Your task to perform on an android device: check google app version Image 0: 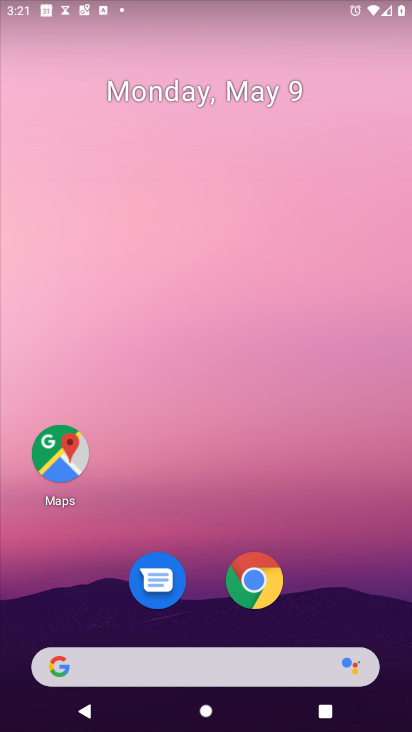
Step 0: drag from (339, 595) to (225, 81)
Your task to perform on an android device: check google app version Image 1: 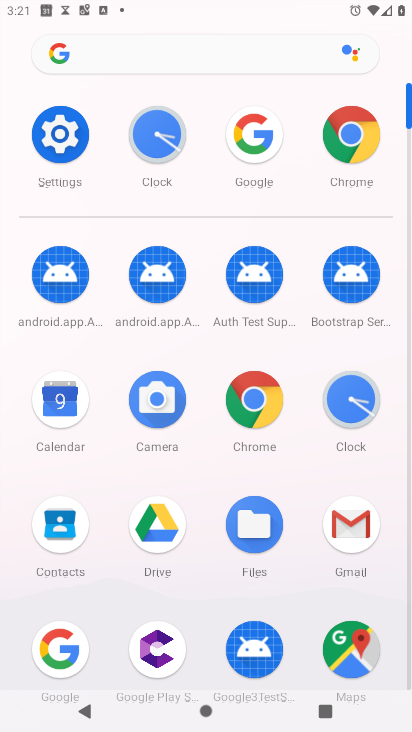
Step 1: click (60, 642)
Your task to perform on an android device: check google app version Image 2: 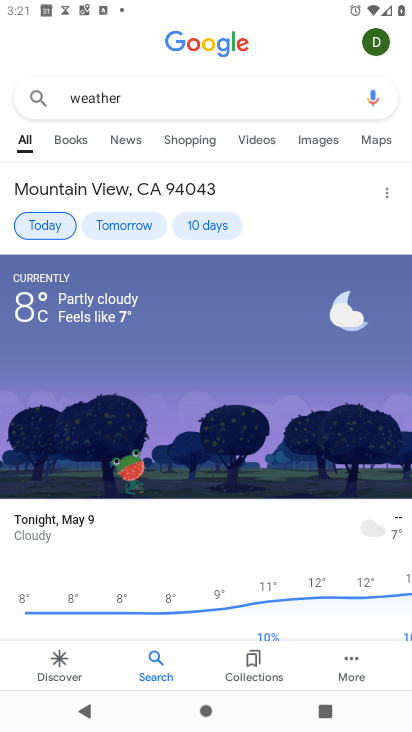
Step 2: click (356, 670)
Your task to perform on an android device: check google app version Image 3: 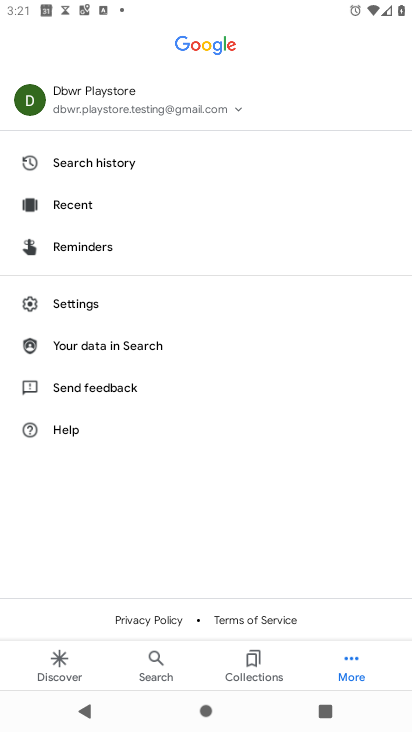
Step 3: click (99, 290)
Your task to perform on an android device: check google app version Image 4: 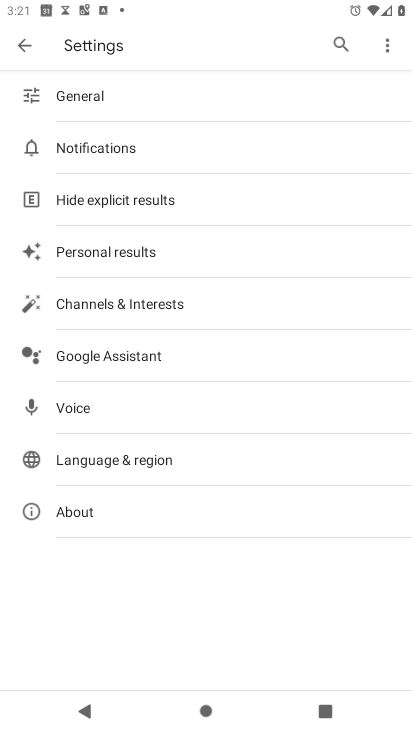
Step 4: click (107, 522)
Your task to perform on an android device: check google app version Image 5: 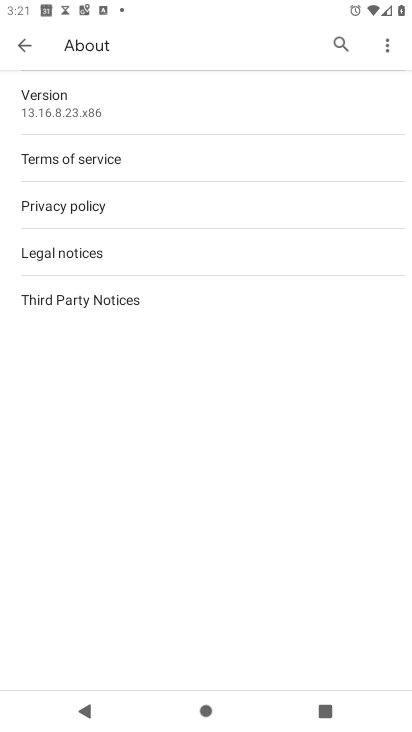
Step 5: click (109, 105)
Your task to perform on an android device: check google app version Image 6: 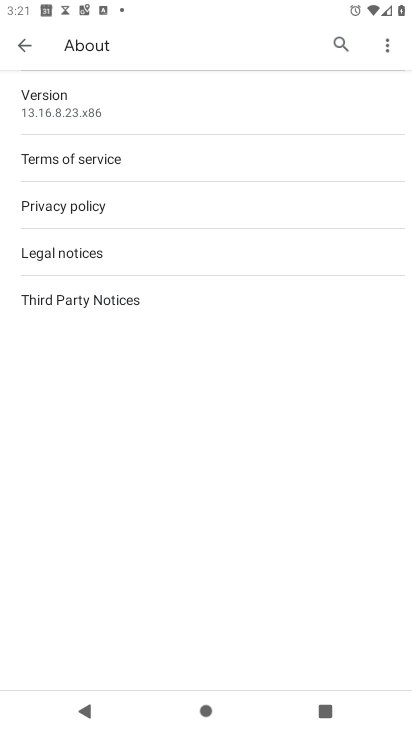
Step 6: task complete